Your task to perform on an android device: Open my contact list Image 0: 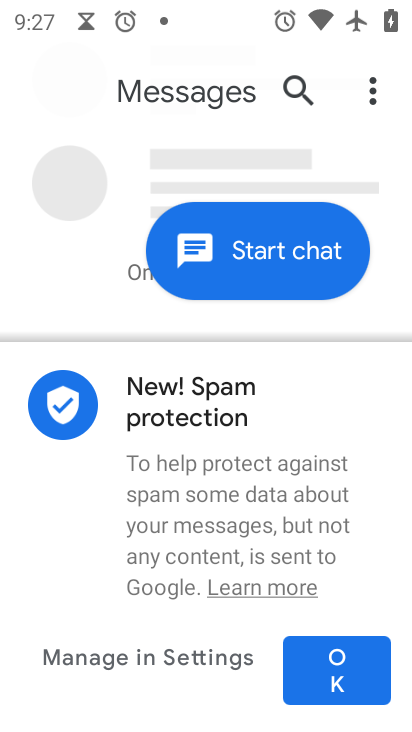
Step 0: press back button
Your task to perform on an android device: Open my contact list Image 1: 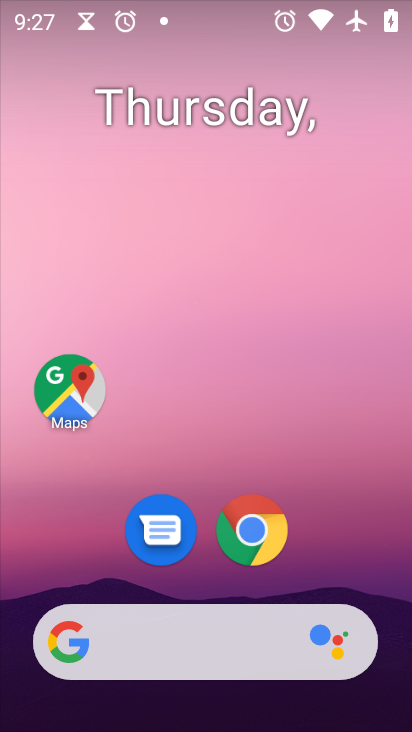
Step 1: drag from (308, 557) to (303, 55)
Your task to perform on an android device: Open my contact list Image 2: 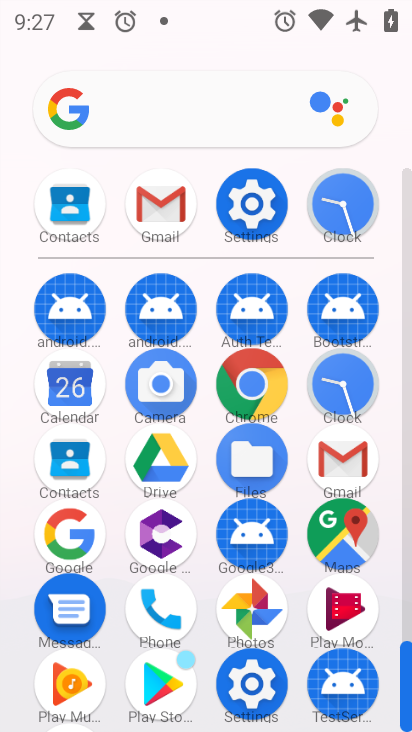
Step 2: click (66, 204)
Your task to perform on an android device: Open my contact list Image 3: 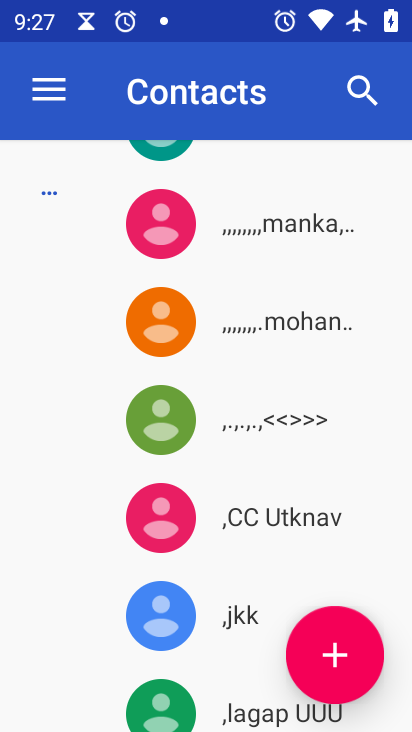
Step 3: task complete